Your task to perform on an android device: snooze an email in the gmail app Image 0: 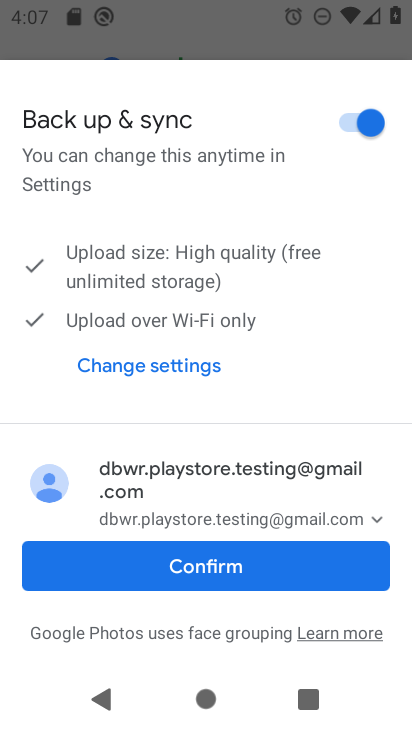
Step 0: press home button
Your task to perform on an android device: snooze an email in the gmail app Image 1: 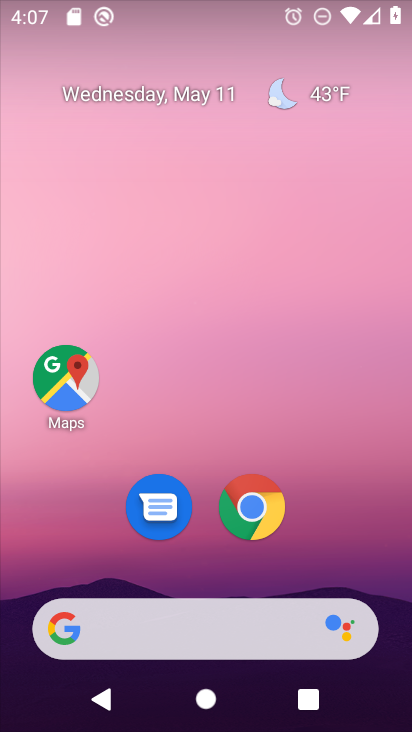
Step 1: drag from (397, 633) to (302, 31)
Your task to perform on an android device: snooze an email in the gmail app Image 2: 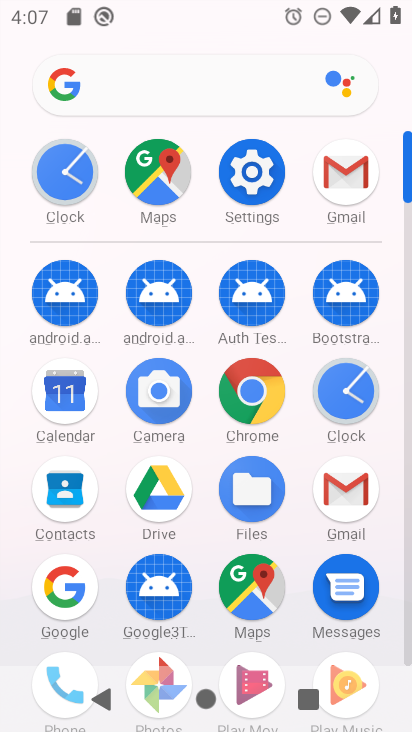
Step 2: click (406, 640)
Your task to perform on an android device: snooze an email in the gmail app Image 3: 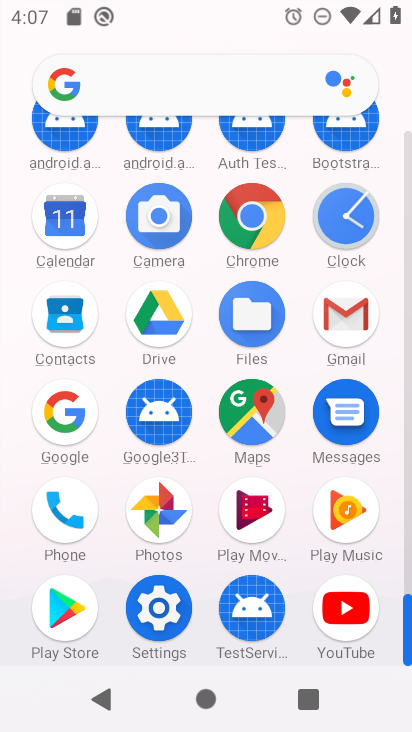
Step 3: click (346, 316)
Your task to perform on an android device: snooze an email in the gmail app Image 4: 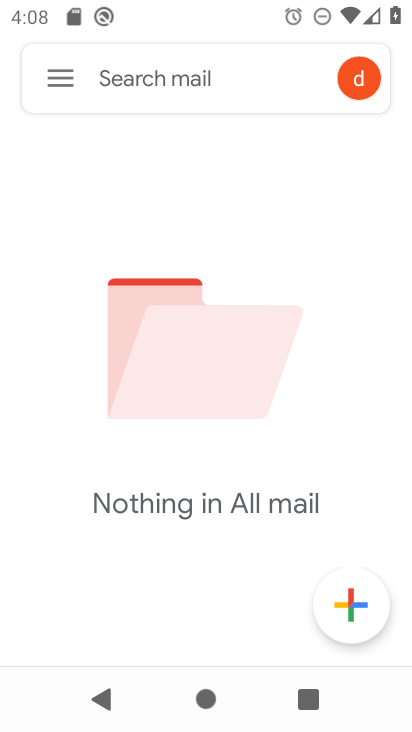
Step 4: click (53, 78)
Your task to perform on an android device: snooze an email in the gmail app Image 5: 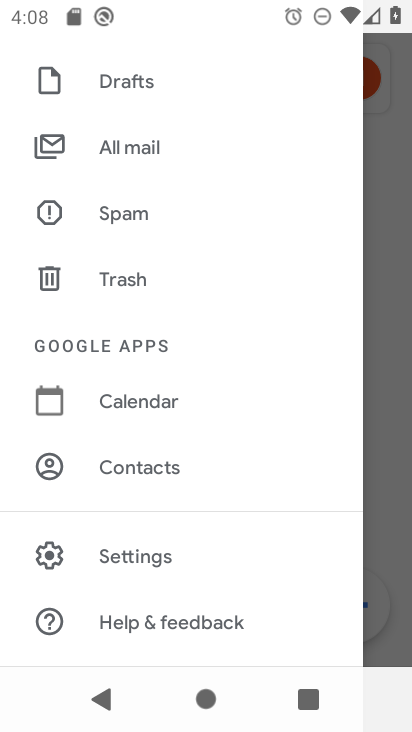
Step 5: click (119, 151)
Your task to perform on an android device: snooze an email in the gmail app Image 6: 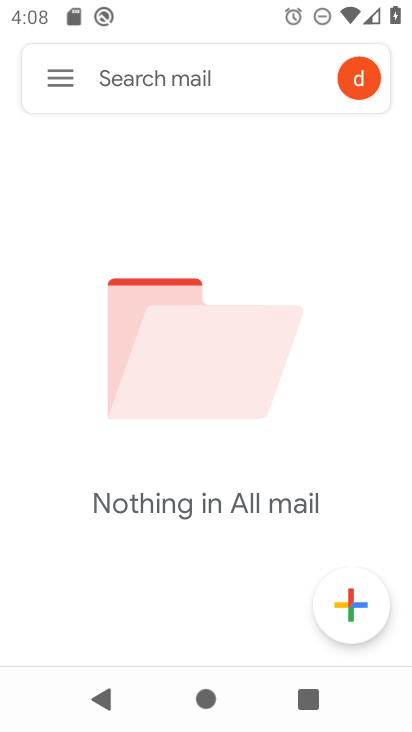
Step 6: task complete